Your task to perform on an android device: turn off location Image 0: 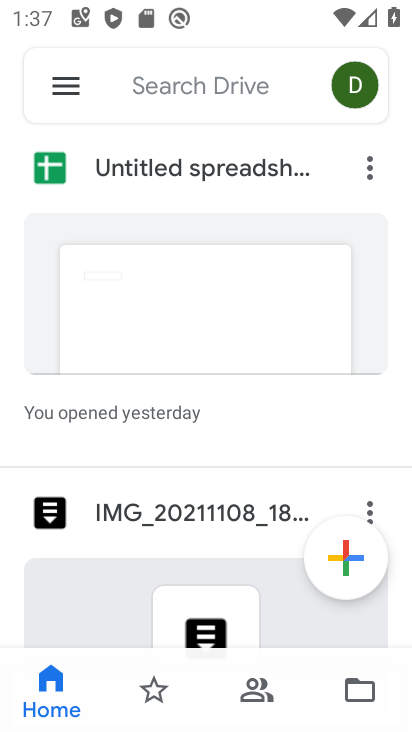
Step 0: press home button
Your task to perform on an android device: turn off location Image 1: 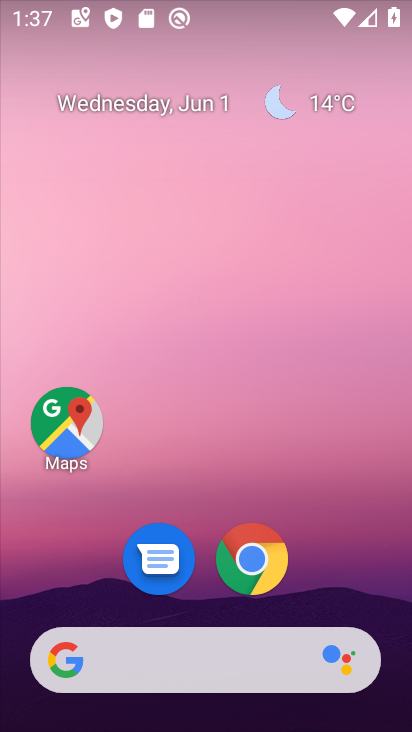
Step 1: drag from (398, 666) to (368, 112)
Your task to perform on an android device: turn off location Image 2: 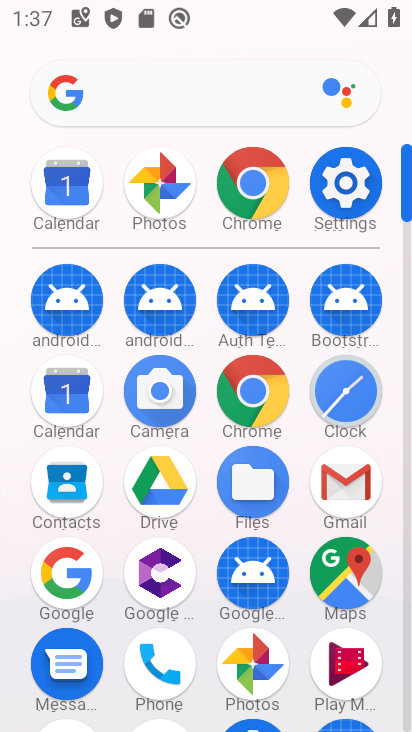
Step 2: click (328, 195)
Your task to perform on an android device: turn off location Image 3: 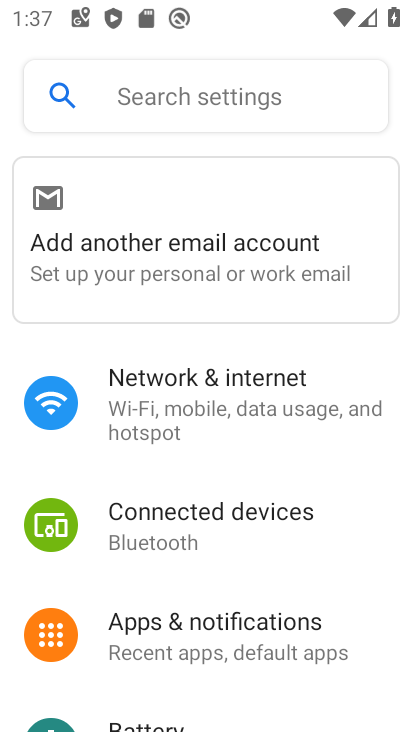
Step 3: drag from (197, 668) to (183, 235)
Your task to perform on an android device: turn off location Image 4: 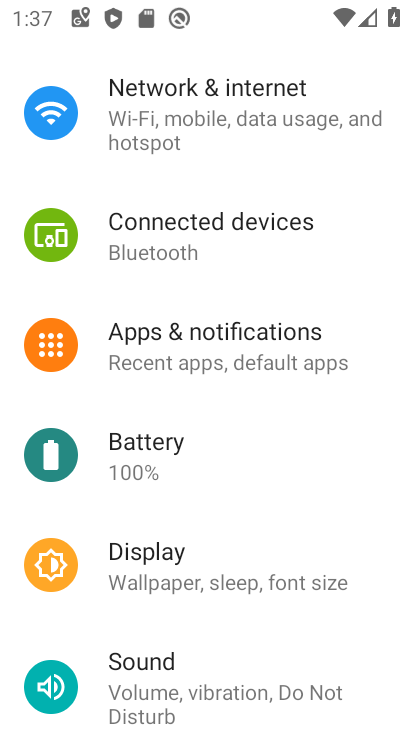
Step 4: drag from (215, 653) to (220, 319)
Your task to perform on an android device: turn off location Image 5: 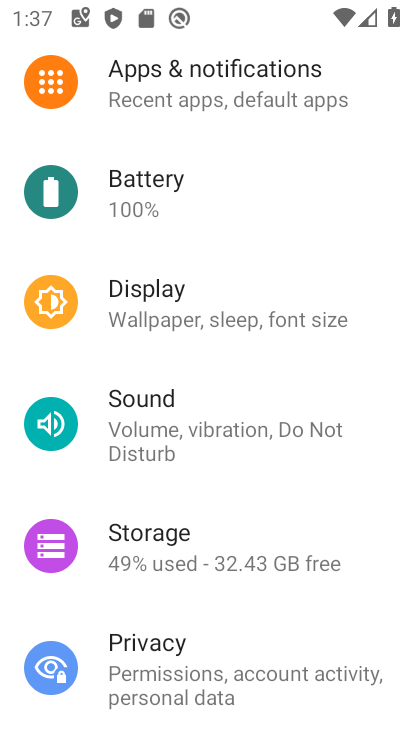
Step 5: drag from (234, 631) to (214, 277)
Your task to perform on an android device: turn off location Image 6: 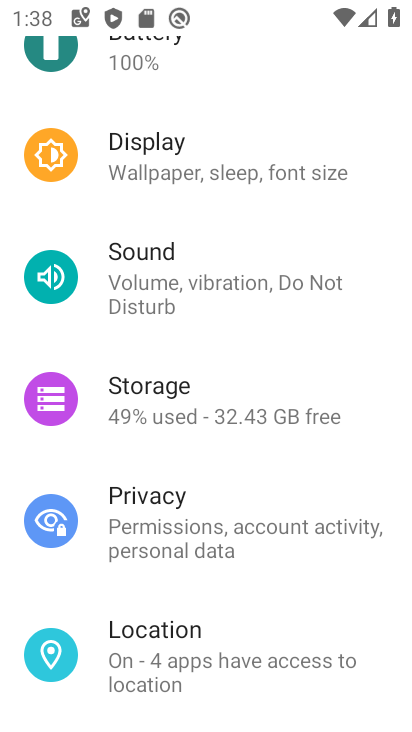
Step 6: click (135, 631)
Your task to perform on an android device: turn off location Image 7: 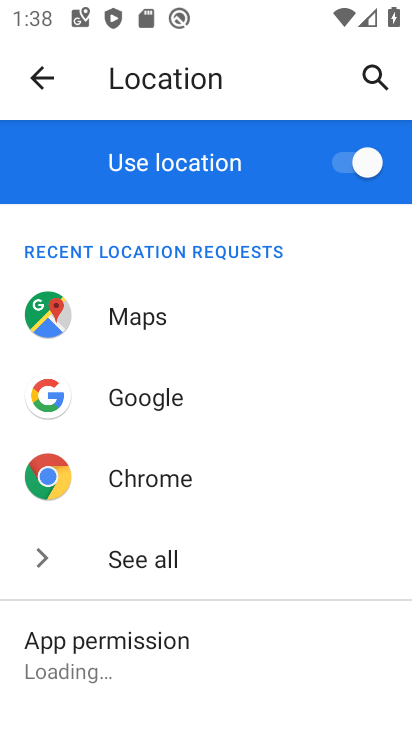
Step 7: click (343, 155)
Your task to perform on an android device: turn off location Image 8: 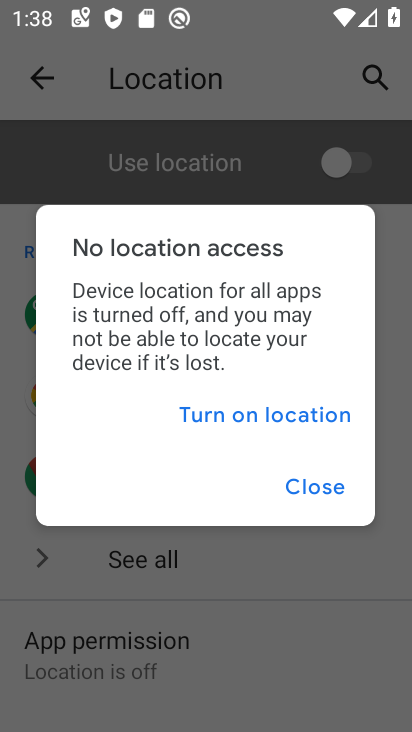
Step 8: click (307, 486)
Your task to perform on an android device: turn off location Image 9: 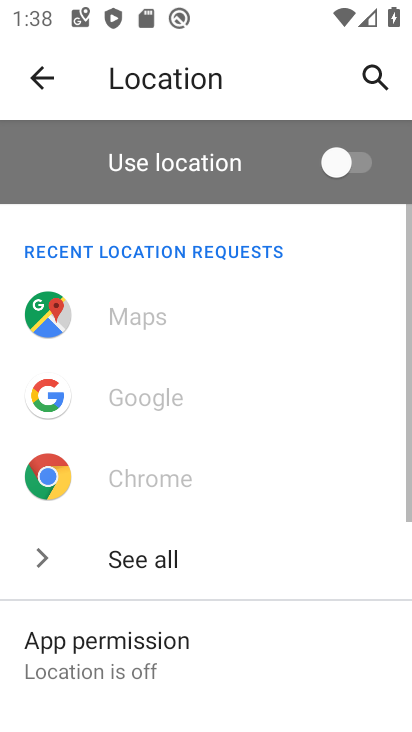
Step 9: task complete